Your task to perform on an android device: manage bookmarks in the chrome app Image 0: 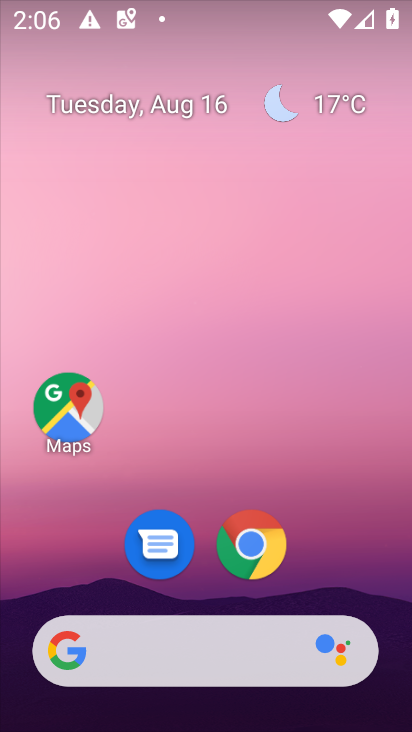
Step 0: click (250, 546)
Your task to perform on an android device: manage bookmarks in the chrome app Image 1: 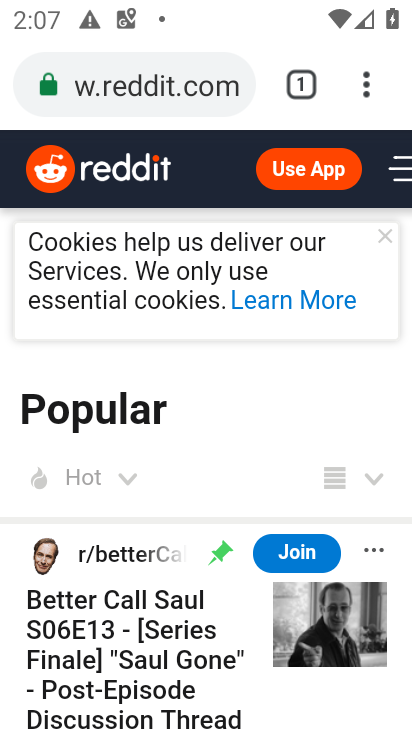
Step 1: click (371, 91)
Your task to perform on an android device: manage bookmarks in the chrome app Image 2: 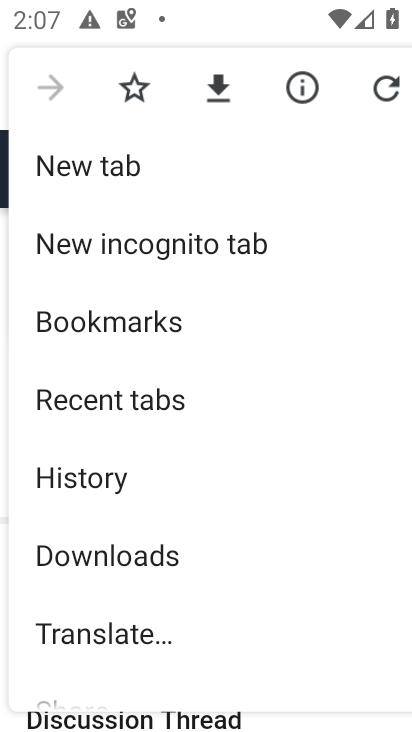
Step 2: click (138, 324)
Your task to perform on an android device: manage bookmarks in the chrome app Image 3: 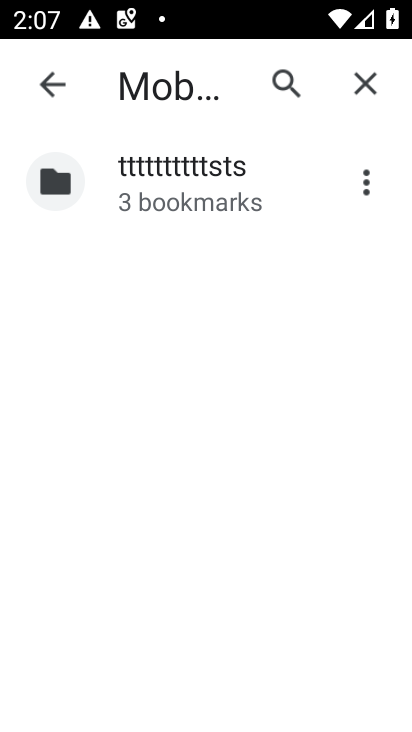
Step 3: task complete